Your task to perform on an android device: Open Youtube and go to the subscriptions tab Image 0: 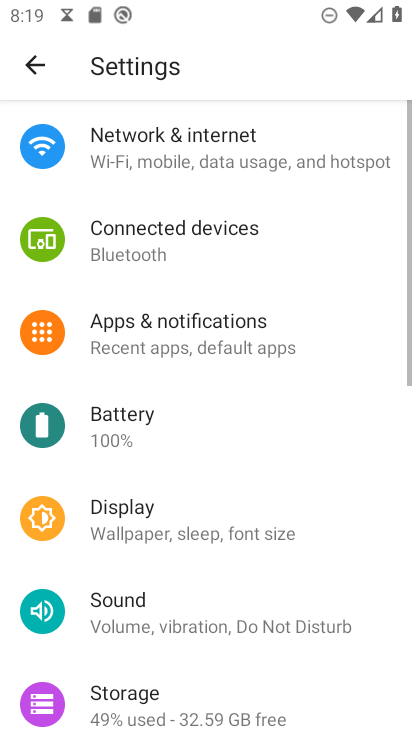
Step 0: press home button
Your task to perform on an android device: Open Youtube and go to the subscriptions tab Image 1: 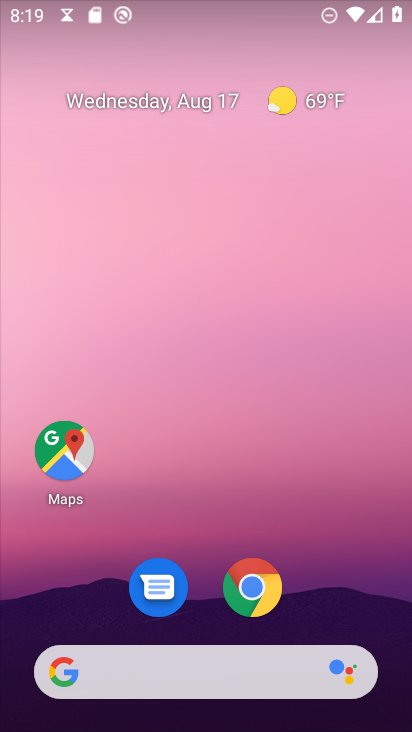
Step 1: drag from (11, 727) to (223, 336)
Your task to perform on an android device: Open Youtube and go to the subscriptions tab Image 2: 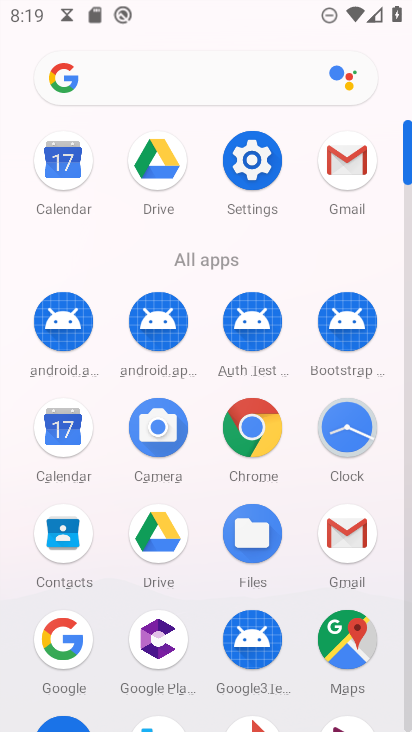
Step 2: drag from (389, 611) to (247, 176)
Your task to perform on an android device: Open Youtube and go to the subscriptions tab Image 3: 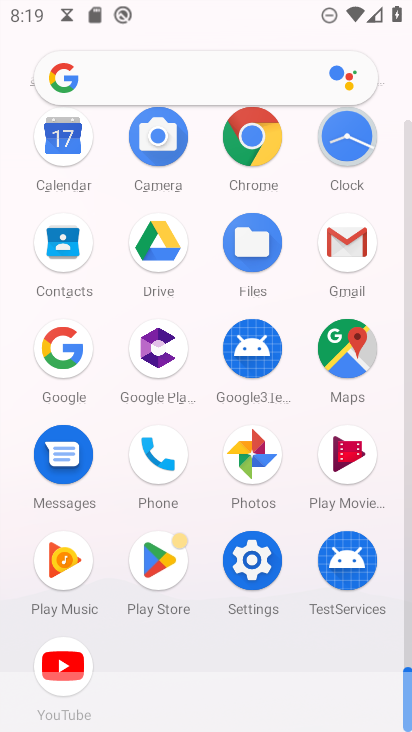
Step 3: click (72, 665)
Your task to perform on an android device: Open Youtube and go to the subscriptions tab Image 4: 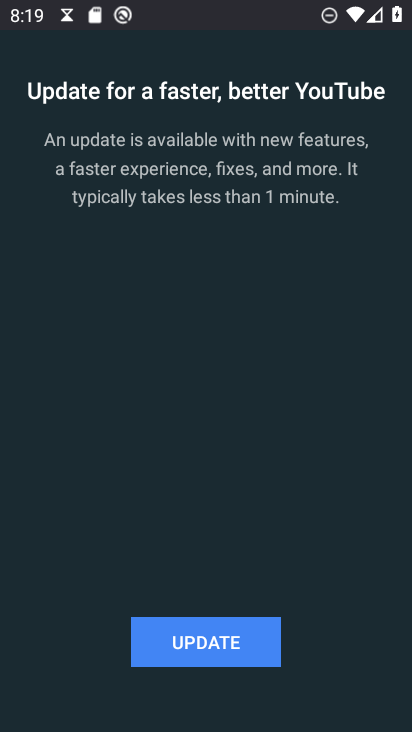
Step 4: click (175, 633)
Your task to perform on an android device: Open Youtube and go to the subscriptions tab Image 5: 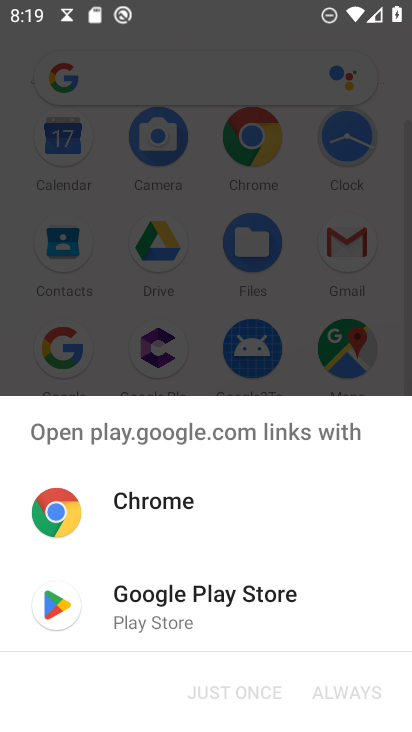
Step 5: click (138, 612)
Your task to perform on an android device: Open Youtube and go to the subscriptions tab Image 6: 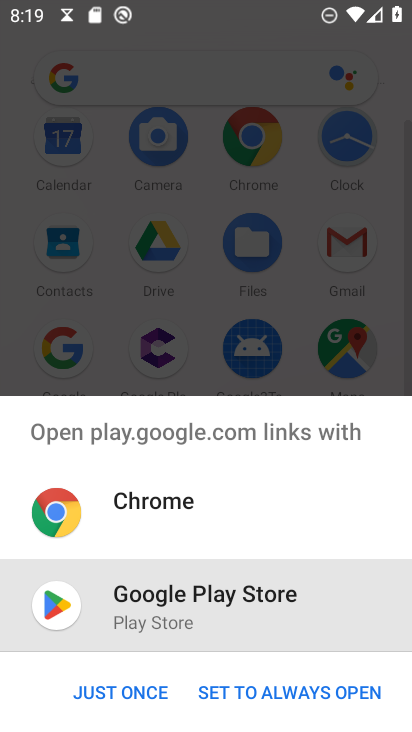
Step 6: click (127, 703)
Your task to perform on an android device: Open Youtube and go to the subscriptions tab Image 7: 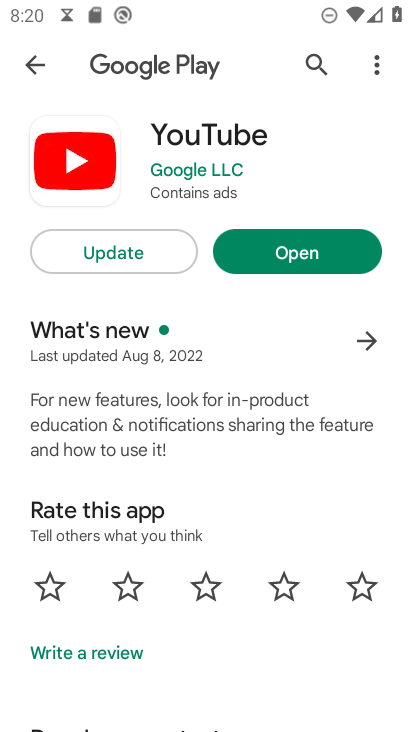
Step 7: click (123, 262)
Your task to perform on an android device: Open Youtube and go to the subscriptions tab Image 8: 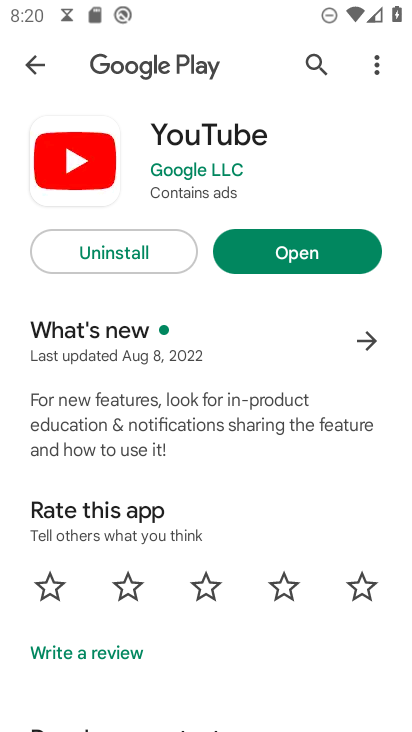
Step 8: click (253, 247)
Your task to perform on an android device: Open Youtube and go to the subscriptions tab Image 9: 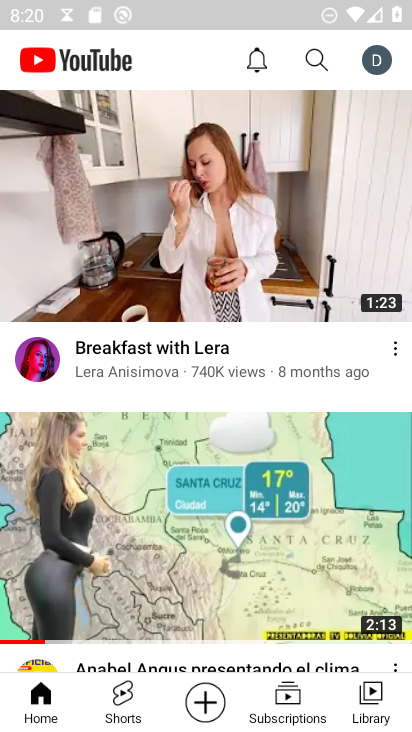
Step 9: click (297, 704)
Your task to perform on an android device: Open Youtube and go to the subscriptions tab Image 10: 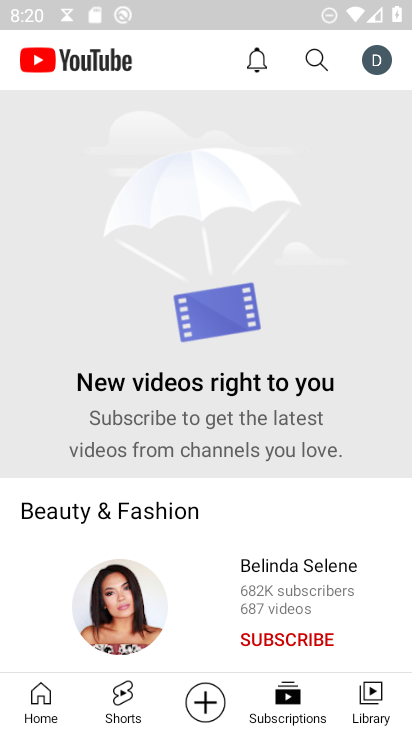
Step 10: task complete